Your task to perform on an android device: turn off notifications settings in the gmail app Image 0: 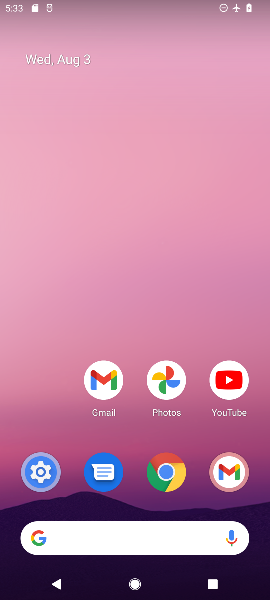
Step 0: drag from (196, 508) to (82, 59)
Your task to perform on an android device: turn off notifications settings in the gmail app Image 1: 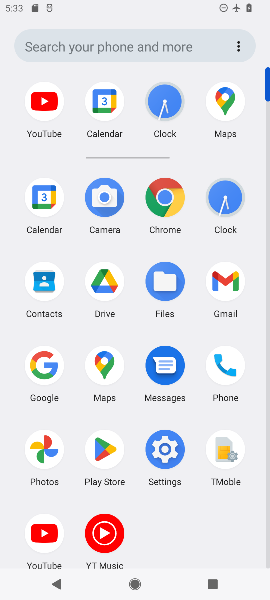
Step 1: click (219, 287)
Your task to perform on an android device: turn off notifications settings in the gmail app Image 2: 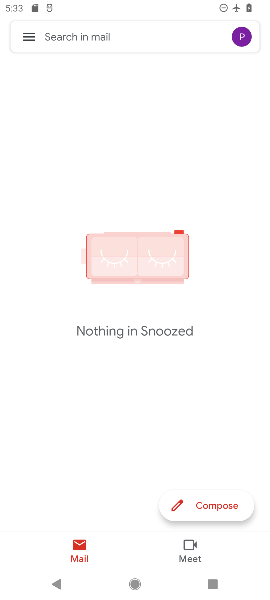
Step 2: click (33, 34)
Your task to perform on an android device: turn off notifications settings in the gmail app Image 3: 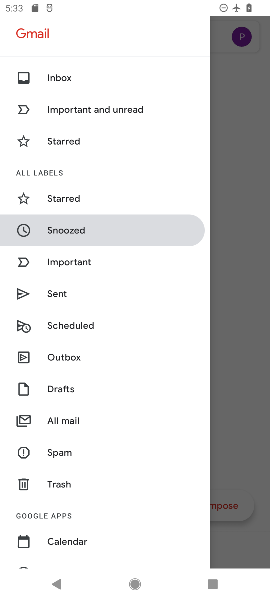
Step 3: drag from (59, 495) to (104, 64)
Your task to perform on an android device: turn off notifications settings in the gmail app Image 4: 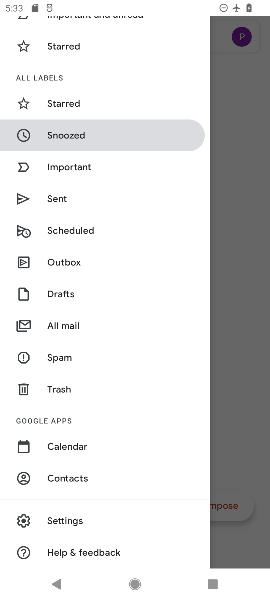
Step 4: click (65, 517)
Your task to perform on an android device: turn off notifications settings in the gmail app Image 5: 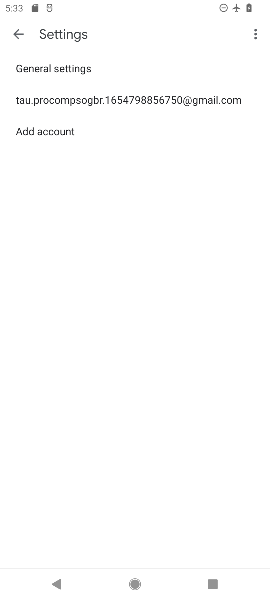
Step 5: click (74, 95)
Your task to perform on an android device: turn off notifications settings in the gmail app Image 6: 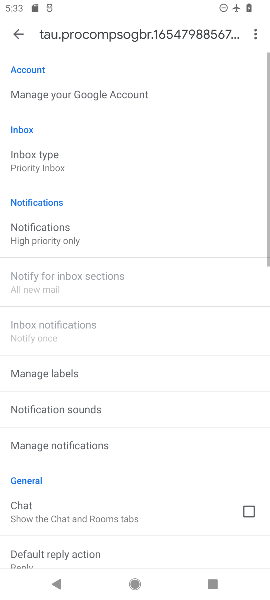
Step 6: click (73, 219)
Your task to perform on an android device: turn off notifications settings in the gmail app Image 7: 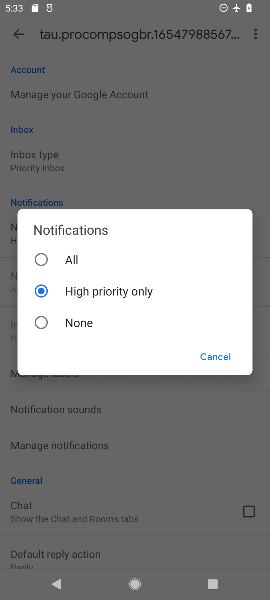
Step 7: click (45, 316)
Your task to perform on an android device: turn off notifications settings in the gmail app Image 8: 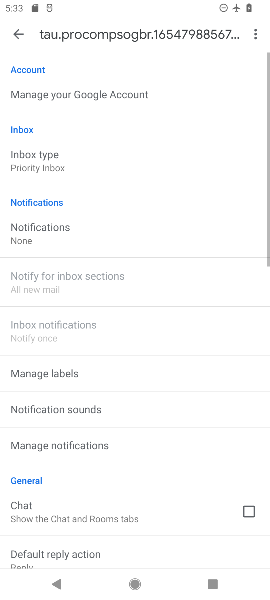
Step 8: task complete